Your task to perform on an android device: turn pop-ups off in chrome Image 0: 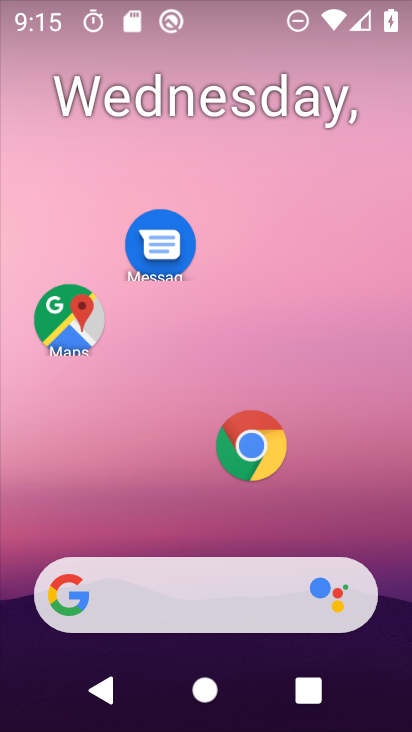
Step 0: click (248, 441)
Your task to perform on an android device: turn pop-ups off in chrome Image 1: 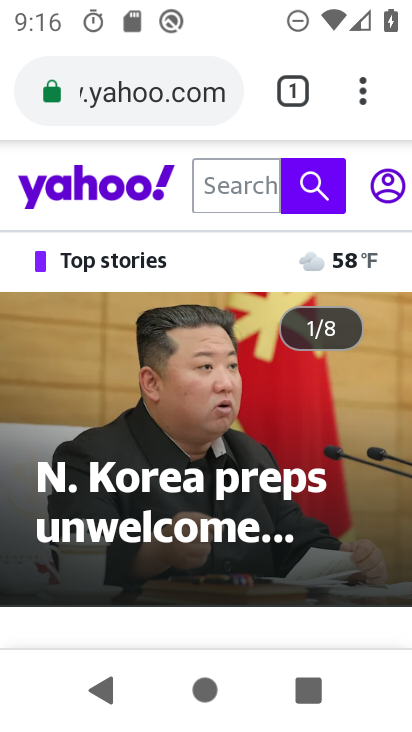
Step 1: click (362, 89)
Your task to perform on an android device: turn pop-ups off in chrome Image 2: 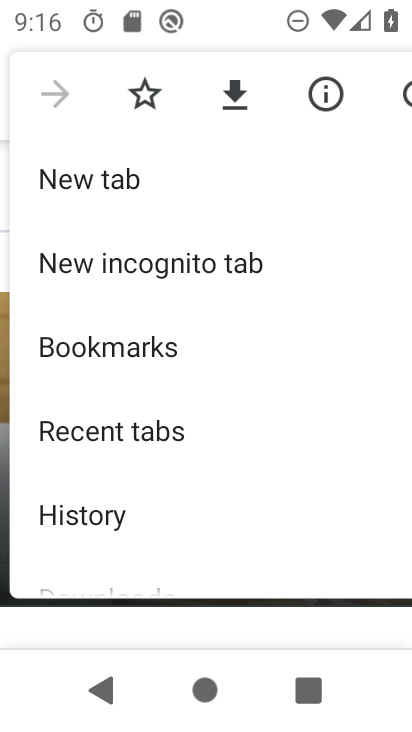
Step 2: drag from (174, 556) to (185, 182)
Your task to perform on an android device: turn pop-ups off in chrome Image 3: 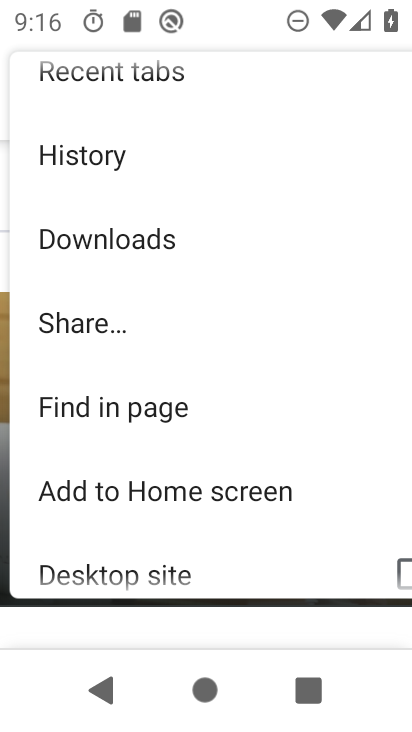
Step 3: drag from (194, 532) to (239, 82)
Your task to perform on an android device: turn pop-ups off in chrome Image 4: 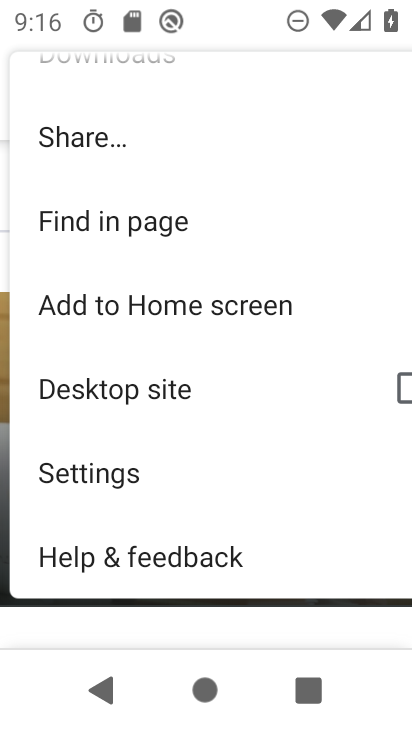
Step 4: click (162, 468)
Your task to perform on an android device: turn pop-ups off in chrome Image 5: 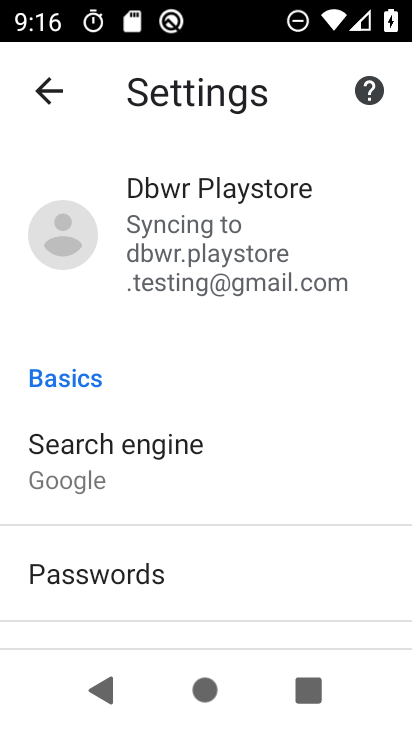
Step 5: drag from (210, 578) to (236, 147)
Your task to perform on an android device: turn pop-ups off in chrome Image 6: 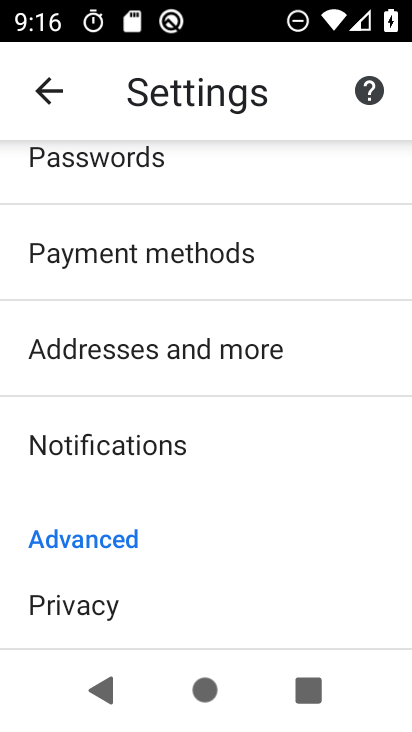
Step 6: drag from (176, 606) to (200, 152)
Your task to perform on an android device: turn pop-ups off in chrome Image 7: 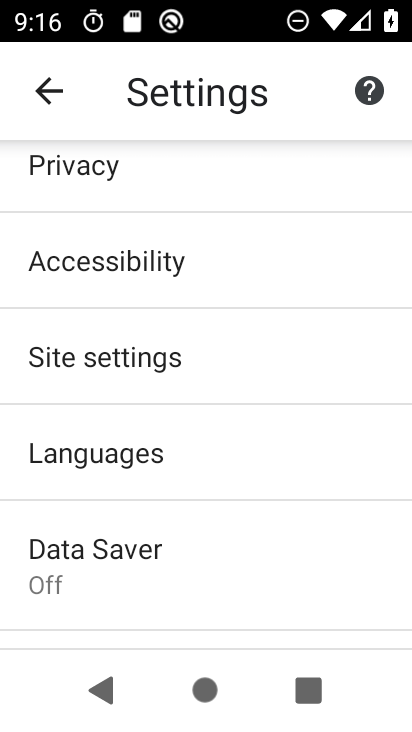
Step 7: click (193, 368)
Your task to perform on an android device: turn pop-ups off in chrome Image 8: 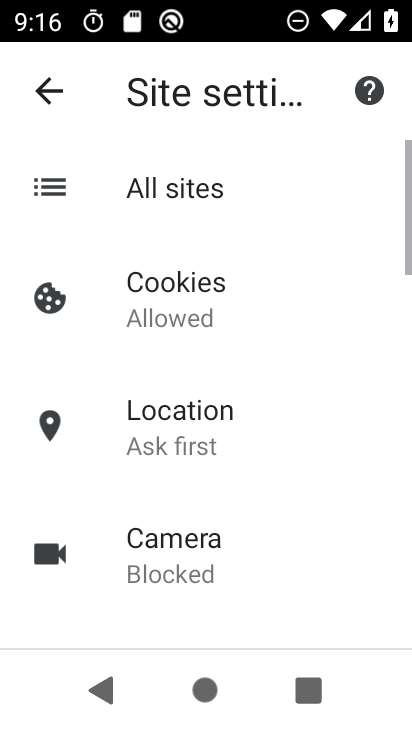
Step 8: drag from (210, 552) to (260, 158)
Your task to perform on an android device: turn pop-ups off in chrome Image 9: 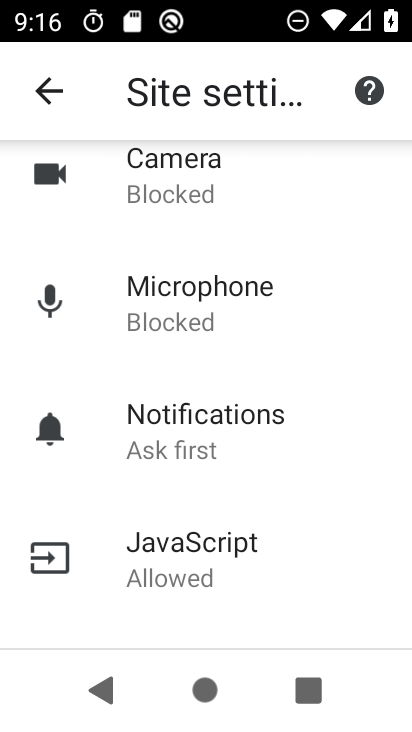
Step 9: drag from (231, 558) to (252, 195)
Your task to perform on an android device: turn pop-ups off in chrome Image 10: 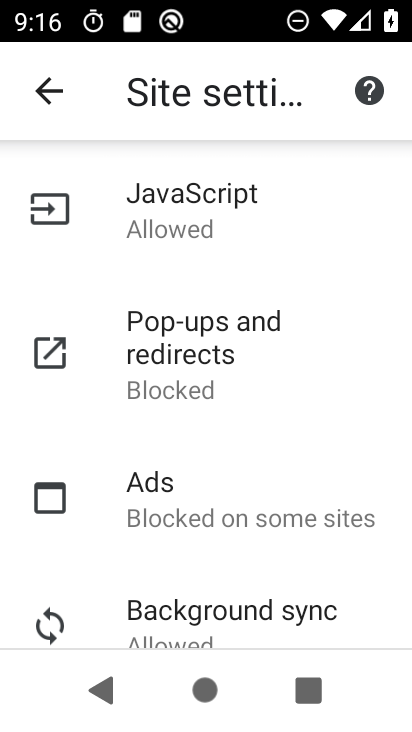
Step 10: click (213, 361)
Your task to perform on an android device: turn pop-ups off in chrome Image 11: 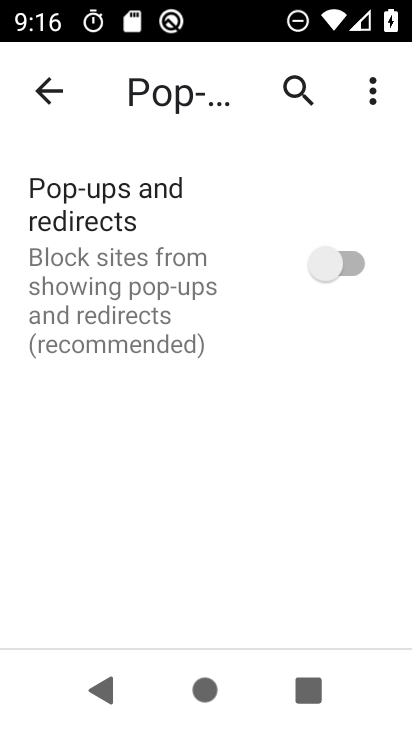
Step 11: task complete